Your task to perform on an android device: Check the news Image 0: 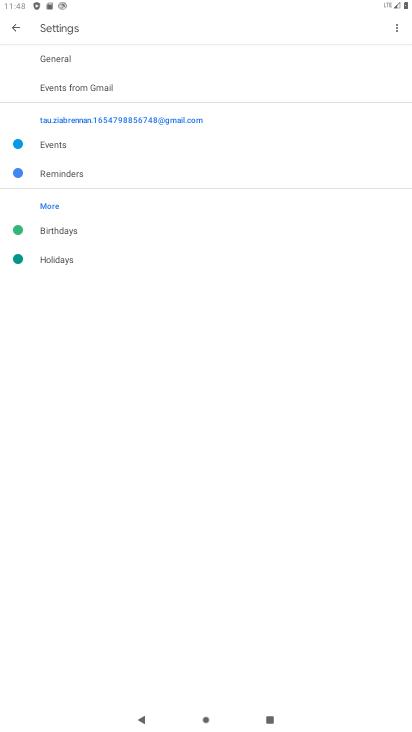
Step 0: press home button
Your task to perform on an android device: Check the news Image 1: 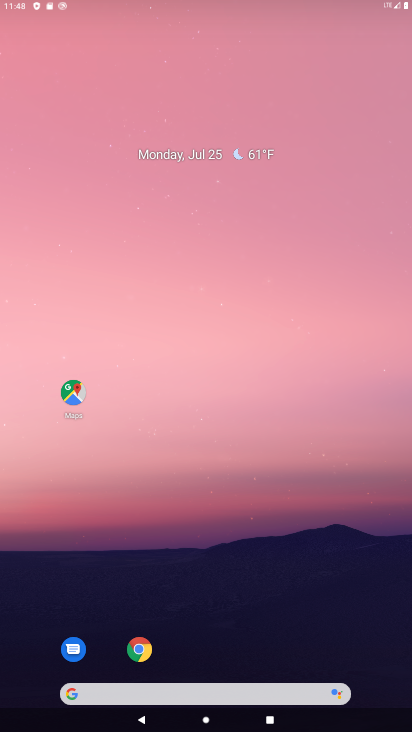
Step 1: drag from (208, 673) to (191, 120)
Your task to perform on an android device: Check the news Image 2: 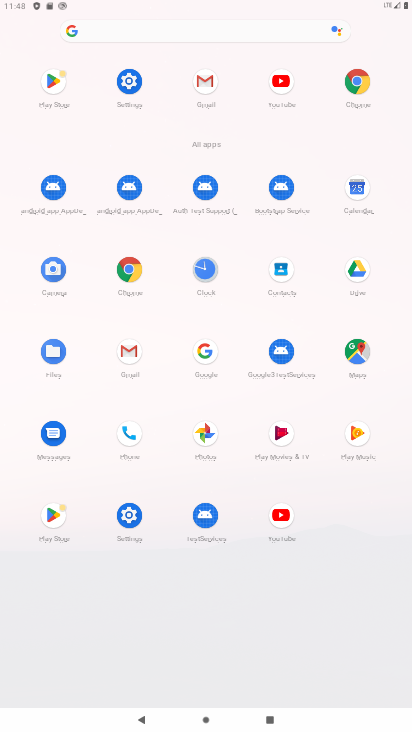
Step 2: click (208, 350)
Your task to perform on an android device: Check the news Image 3: 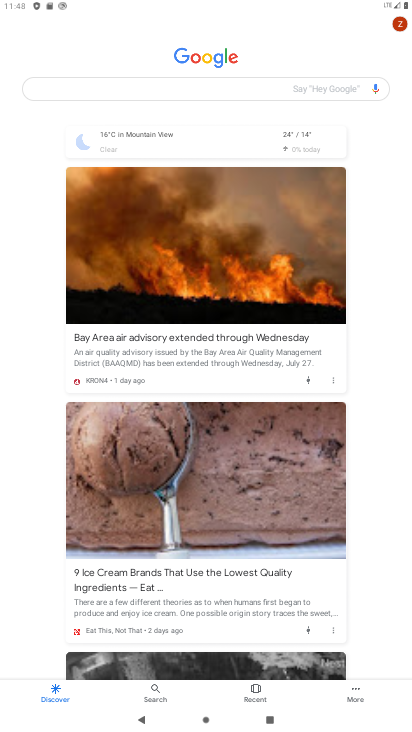
Step 3: click (135, 86)
Your task to perform on an android device: Check the news Image 4: 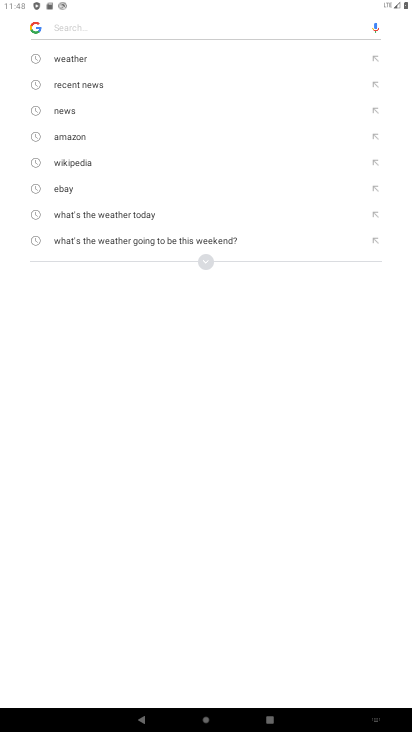
Step 4: click (65, 108)
Your task to perform on an android device: Check the news Image 5: 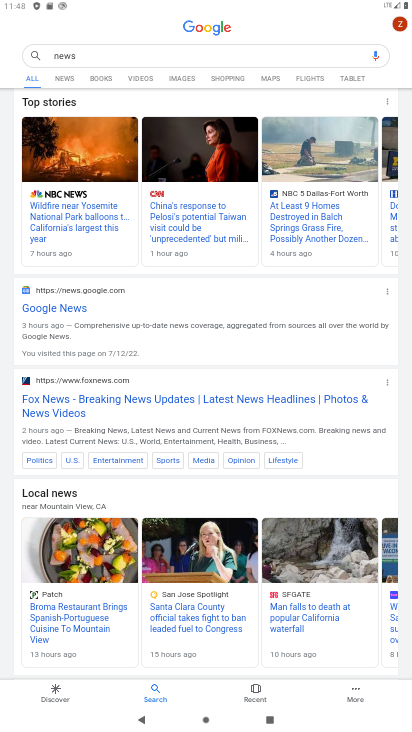
Step 5: task complete